Your task to perform on an android device: Is it going to rain tomorrow? Image 0: 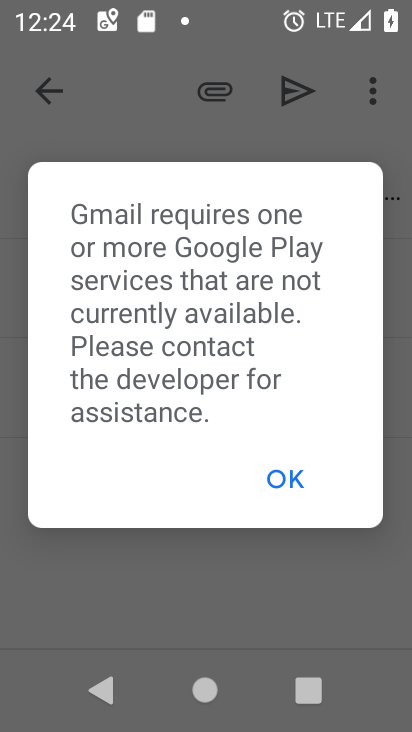
Step 0: press home button
Your task to perform on an android device: Is it going to rain tomorrow? Image 1: 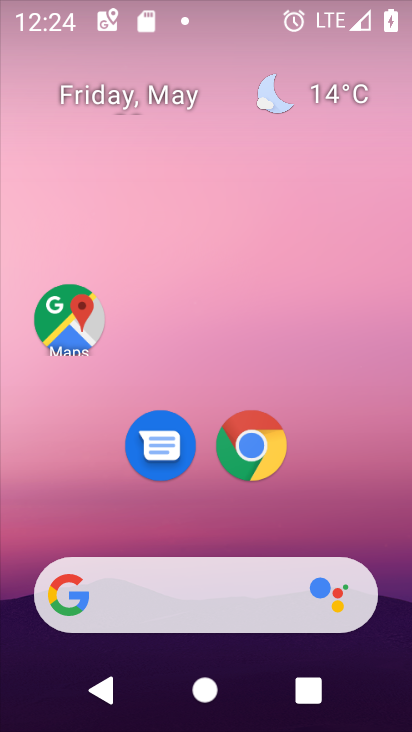
Step 1: drag from (227, 523) to (252, 43)
Your task to perform on an android device: Is it going to rain tomorrow? Image 2: 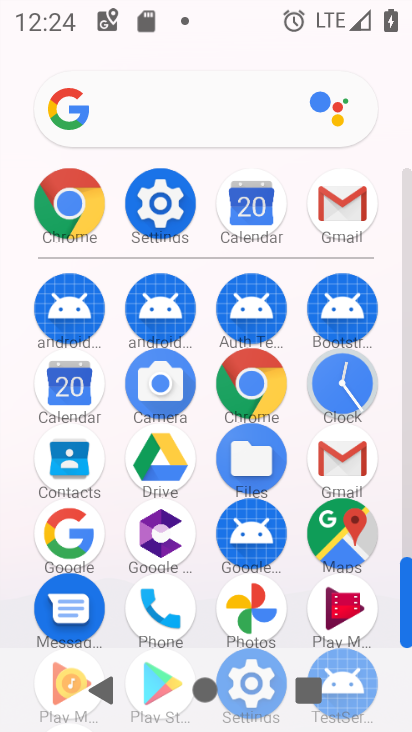
Step 2: click (69, 539)
Your task to perform on an android device: Is it going to rain tomorrow? Image 3: 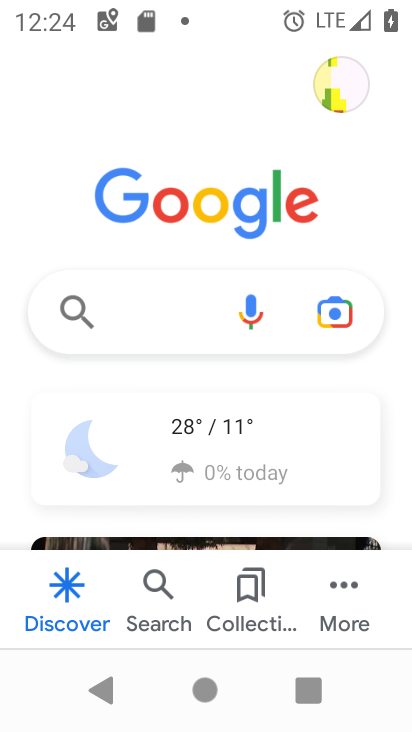
Step 3: click (159, 485)
Your task to perform on an android device: Is it going to rain tomorrow? Image 4: 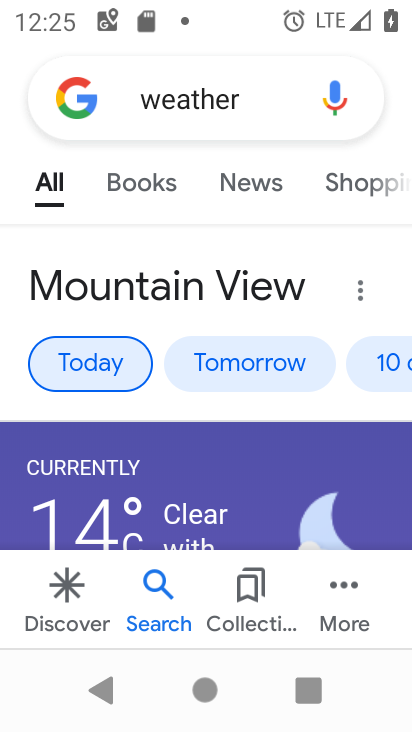
Step 4: task complete